Your task to perform on an android device: Go to Amazon Image 0: 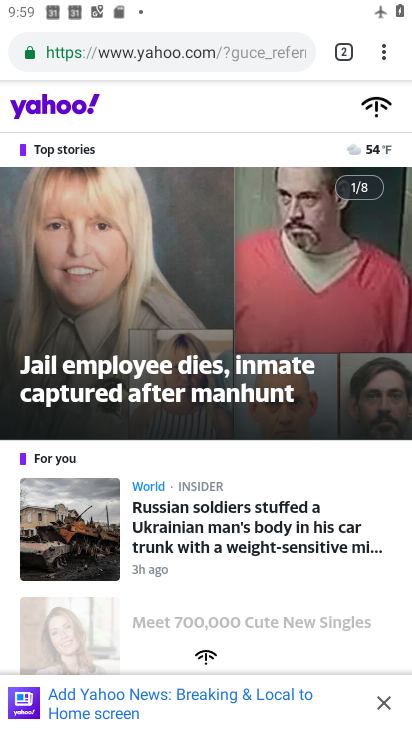
Step 0: press home button
Your task to perform on an android device: Go to Amazon Image 1: 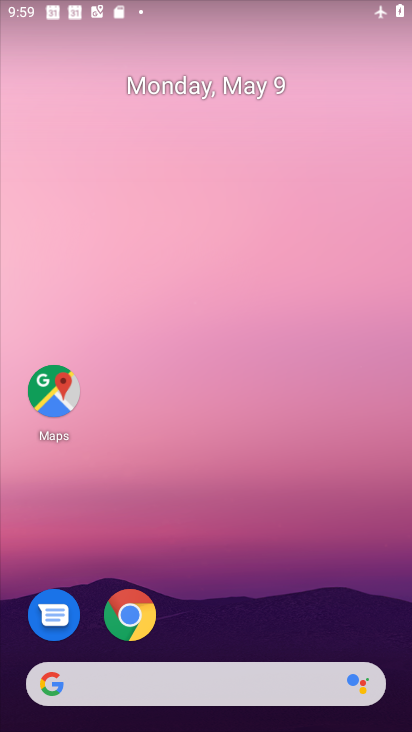
Step 1: drag from (284, 688) to (239, 269)
Your task to perform on an android device: Go to Amazon Image 2: 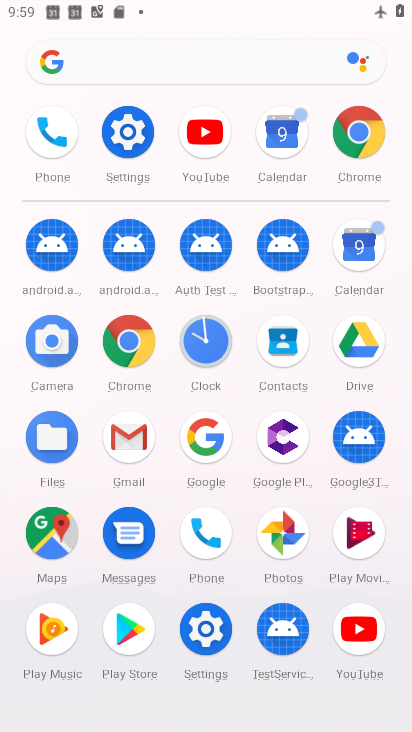
Step 2: click (346, 133)
Your task to perform on an android device: Go to Amazon Image 3: 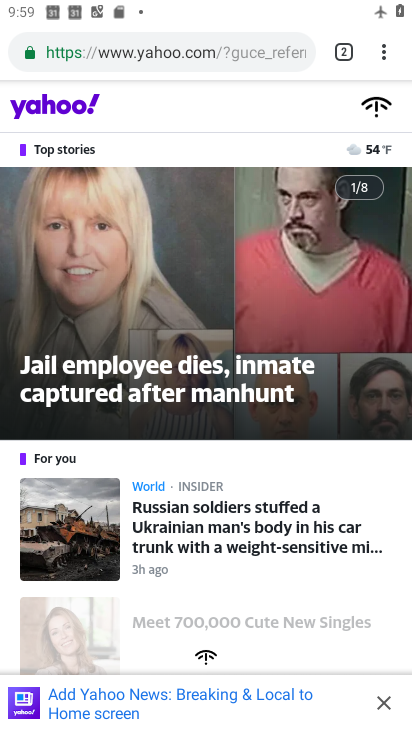
Step 3: click (345, 56)
Your task to perform on an android device: Go to Amazon Image 4: 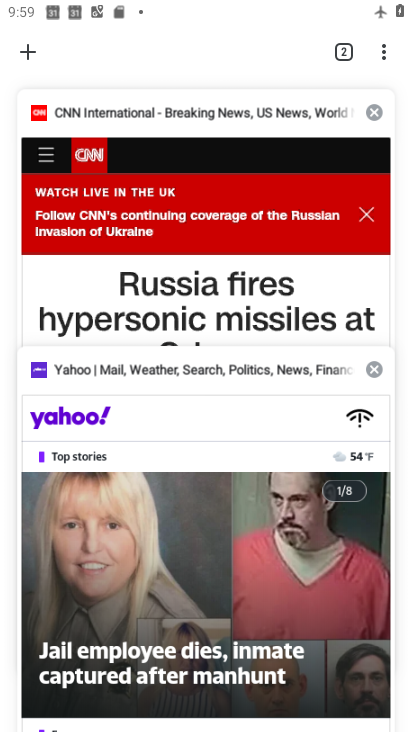
Step 4: click (25, 54)
Your task to perform on an android device: Go to Amazon Image 5: 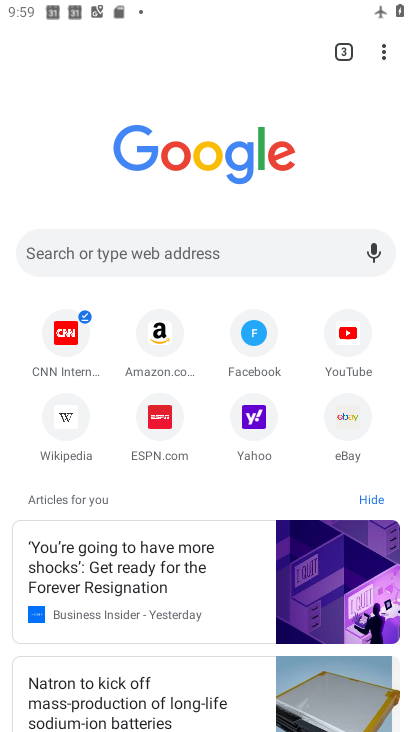
Step 5: click (148, 340)
Your task to perform on an android device: Go to Amazon Image 6: 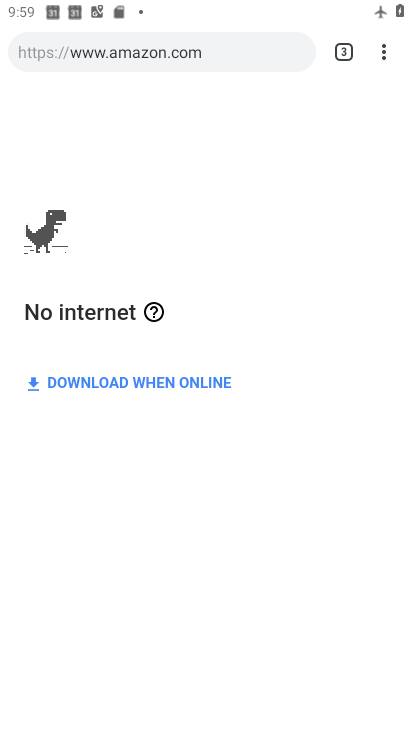
Step 6: press home button
Your task to perform on an android device: Go to Amazon Image 7: 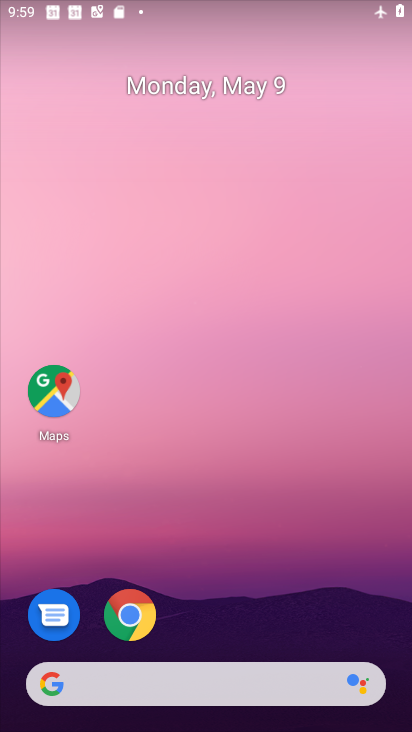
Step 7: drag from (269, 697) to (330, 182)
Your task to perform on an android device: Go to Amazon Image 8: 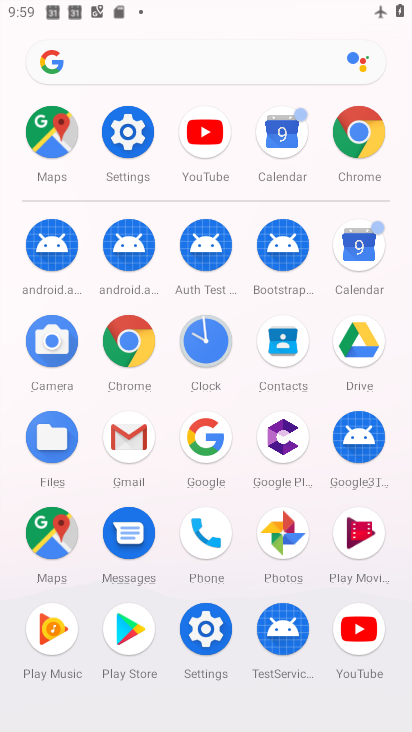
Step 8: click (353, 127)
Your task to perform on an android device: Go to Amazon Image 9: 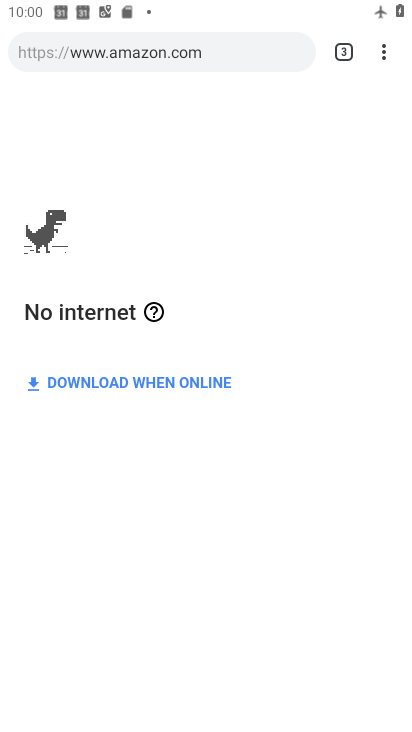
Step 9: press home button
Your task to perform on an android device: Go to Amazon Image 10: 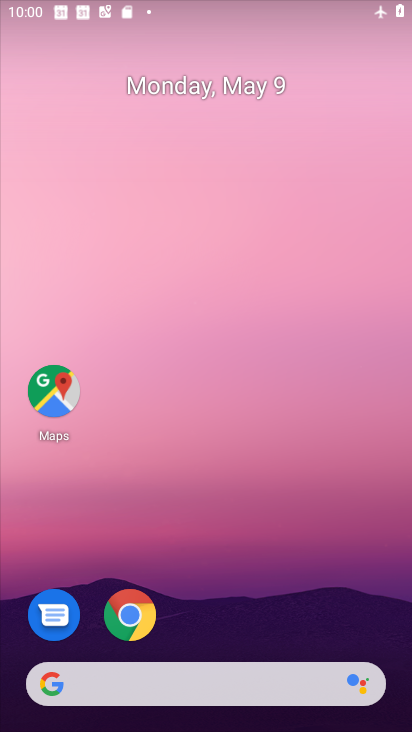
Step 10: drag from (244, 614) to (238, 372)
Your task to perform on an android device: Go to Amazon Image 11: 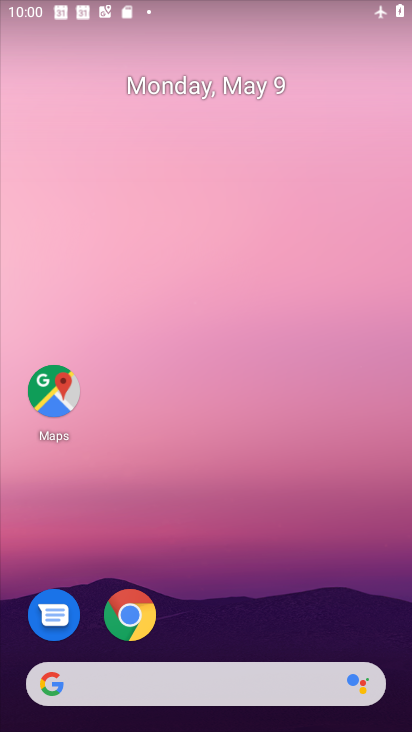
Step 11: drag from (192, 702) to (249, 264)
Your task to perform on an android device: Go to Amazon Image 12: 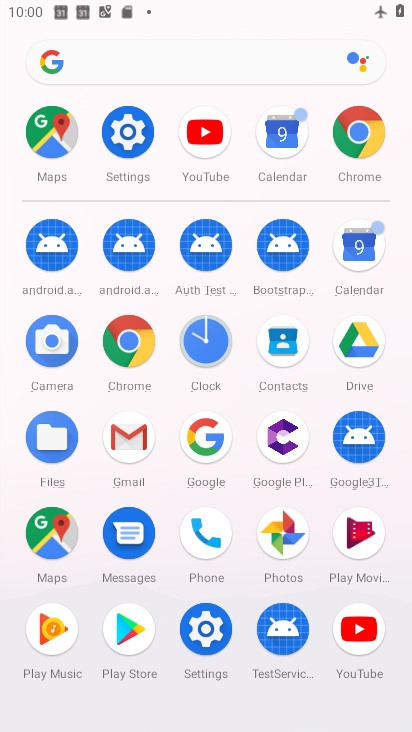
Step 12: click (104, 145)
Your task to perform on an android device: Go to Amazon Image 13: 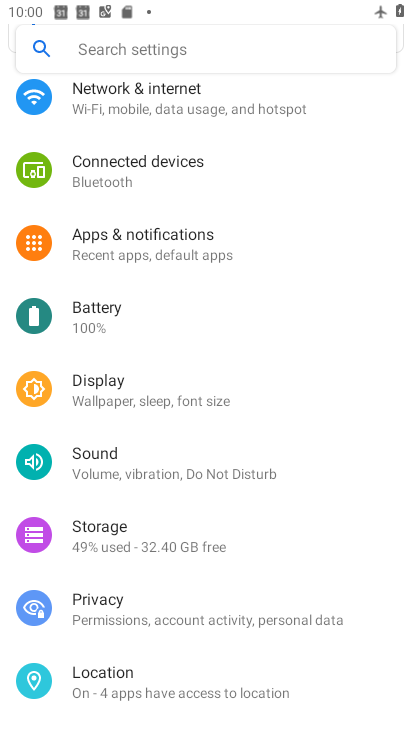
Step 13: drag from (140, 182) to (143, 510)
Your task to perform on an android device: Go to Amazon Image 14: 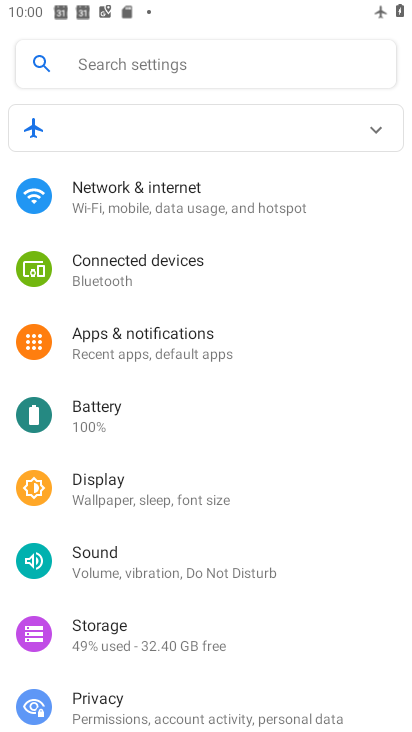
Step 14: click (366, 134)
Your task to perform on an android device: Go to Amazon Image 15: 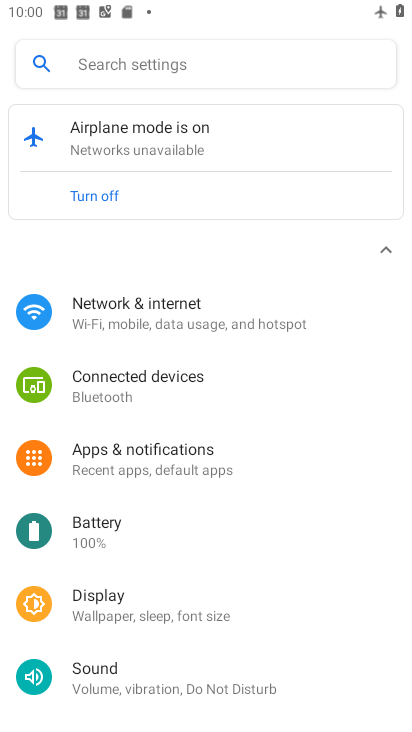
Step 15: click (144, 194)
Your task to perform on an android device: Go to Amazon Image 16: 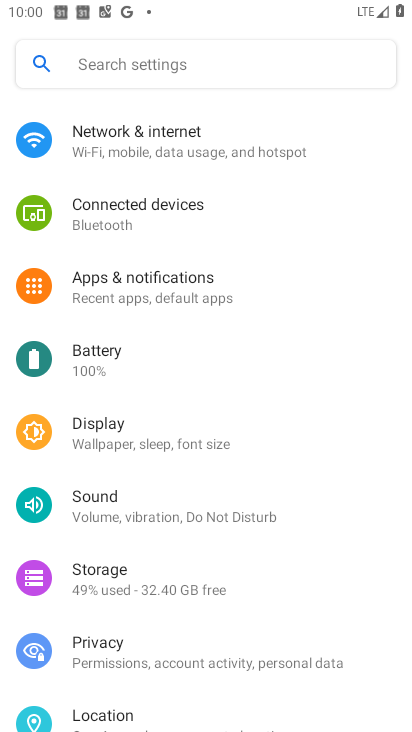
Step 16: press home button
Your task to perform on an android device: Go to Amazon Image 17: 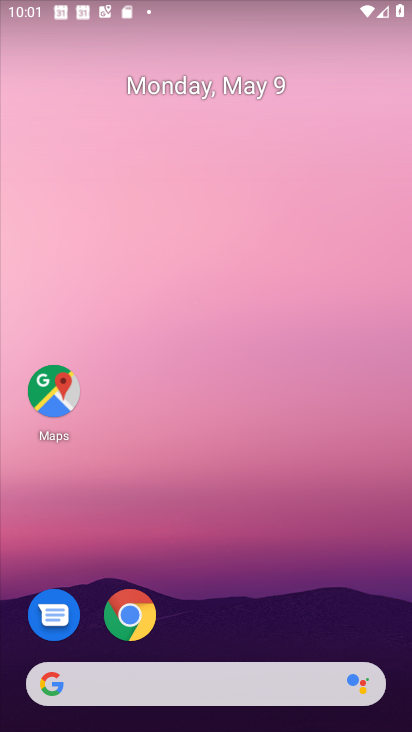
Step 17: click (154, 643)
Your task to perform on an android device: Go to Amazon Image 18: 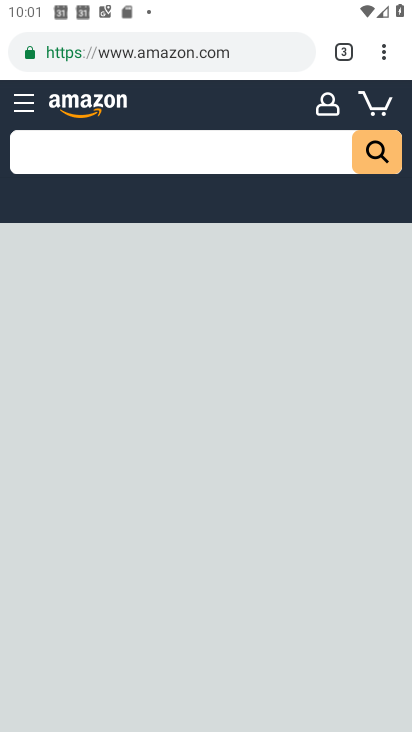
Step 18: task complete